Your task to perform on an android device: toggle notification dots Image 0: 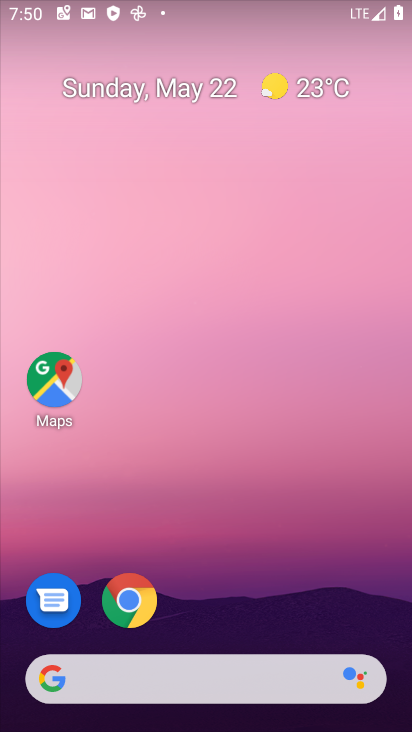
Step 0: drag from (305, 607) to (287, 0)
Your task to perform on an android device: toggle notification dots Image 1: 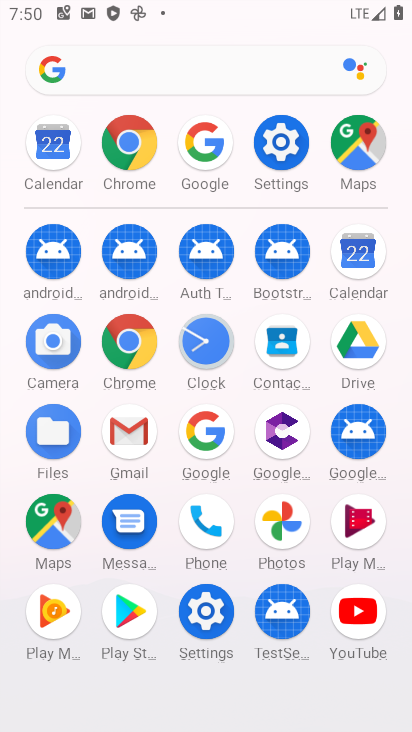
Step 1: click (280, 146)
Your task to perform on an android device: toggle notification dots Image 2: 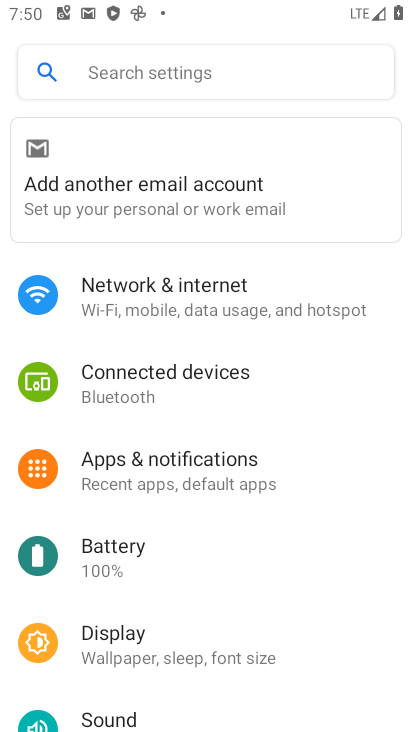
Step 2: click (184, 483)
Your task to perform on an android device: toggle notification dots Image 3: 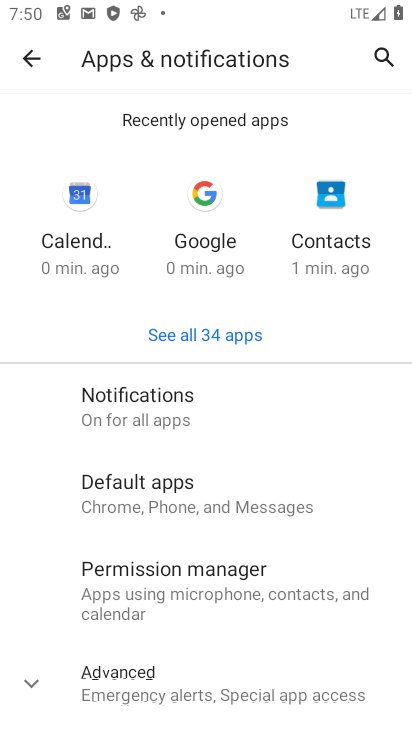
Step 3: click (184, 437)
Your task to perform on an android device: toggle notification dots Image 4: 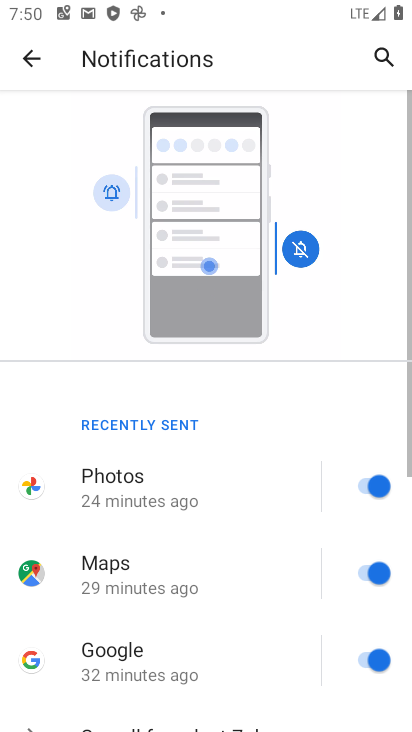
Step 4: drag from (224, 498) to (264, 20)
Your task to perform on an android device: toggle notification dots Image 5: 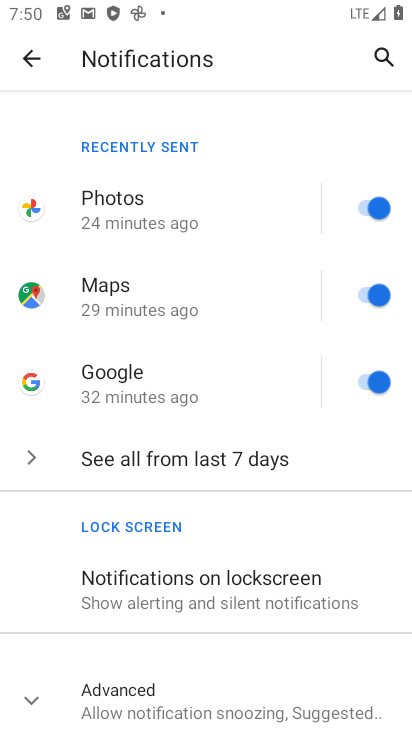
Step 5: click (97, 685)
Your task to perform on an android device: toggle notification dots Image 6: 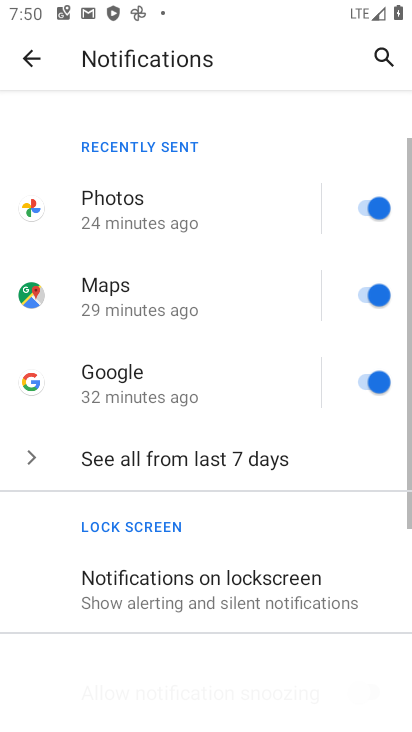
Step 6: drag from (118, 708) to (227, 63)
Your task to perform on an android device: toggle notification dots Image 7: 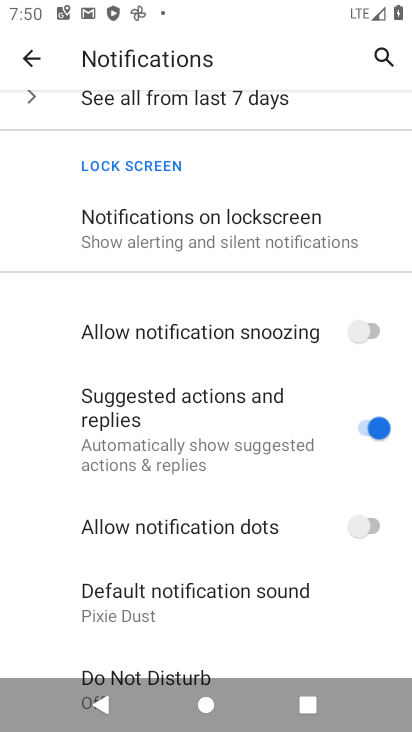
Step 7: click (221, 519)
Your task to perform on an android device: toggle notification dots Image 8: 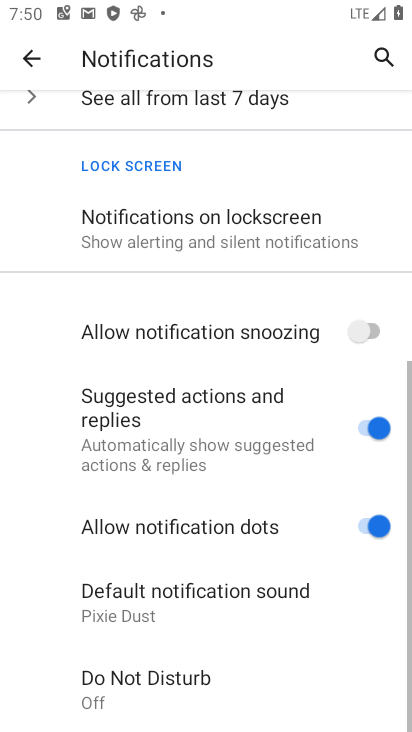
Step 8: task complete